Your task to perform on an android device: Open Chrome and go to settings Image 0: 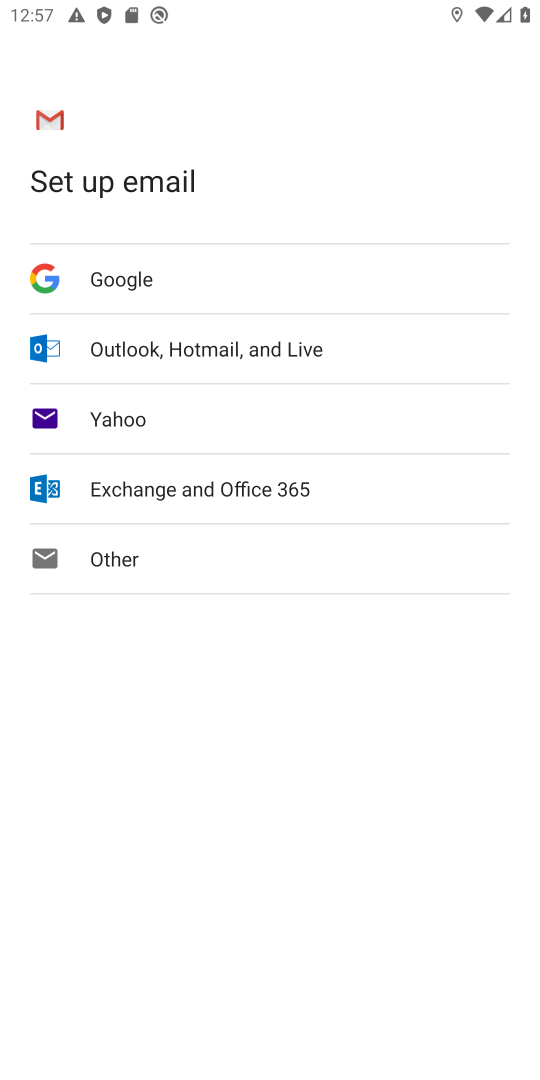
Step 0: press home button
Your task to perform on an android device: Open Chrome and go to settings Image 1: 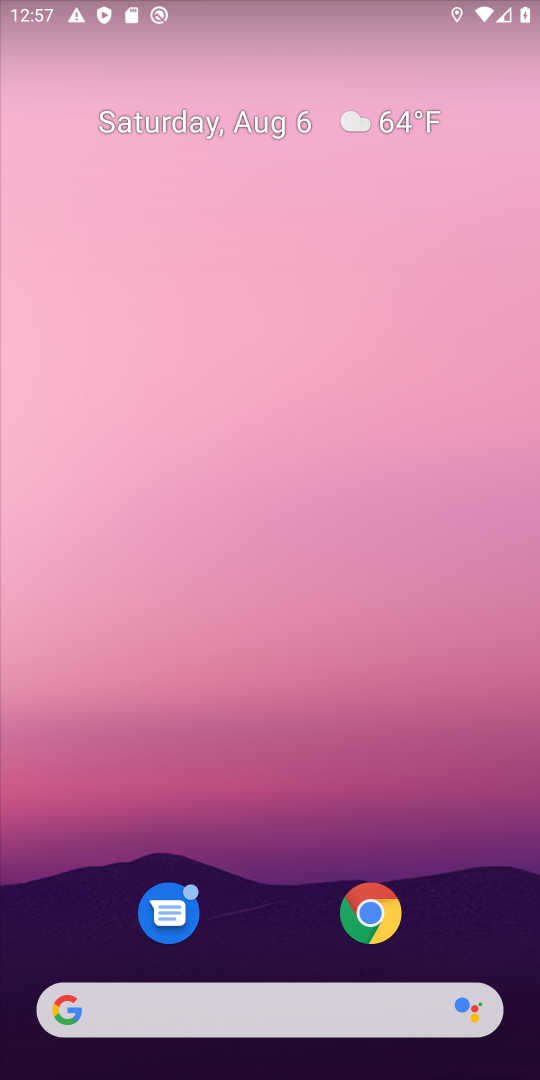
Step 1: drag from (279, 867) to (292, 396)
Your task to perform on an android device: Open Chrome and go to settings Image 2: 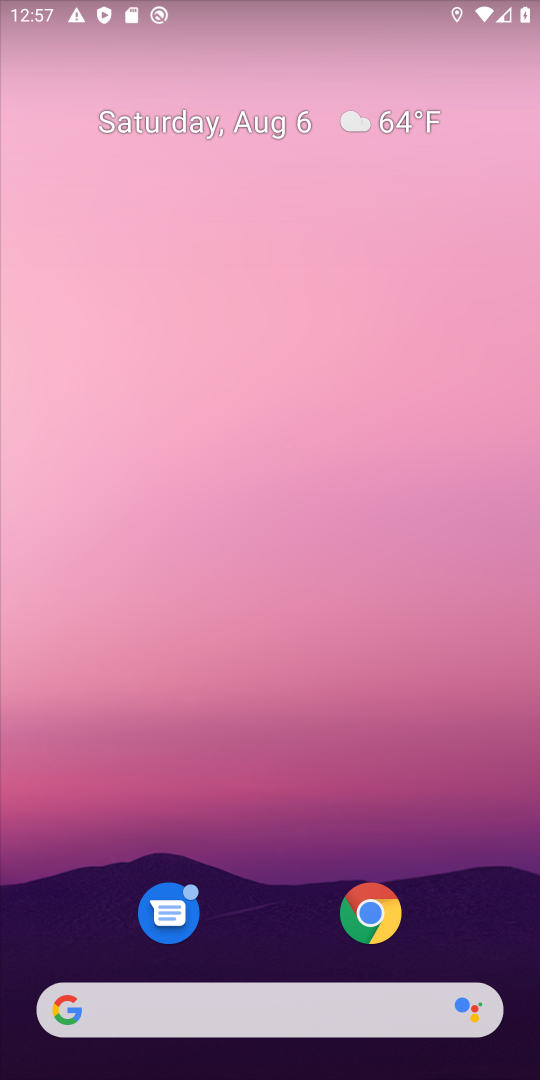
Step 2: drag from (446, 936) to (454, 332)
Your task to perform on an android device: Open Chrome and go to settings Image 3: 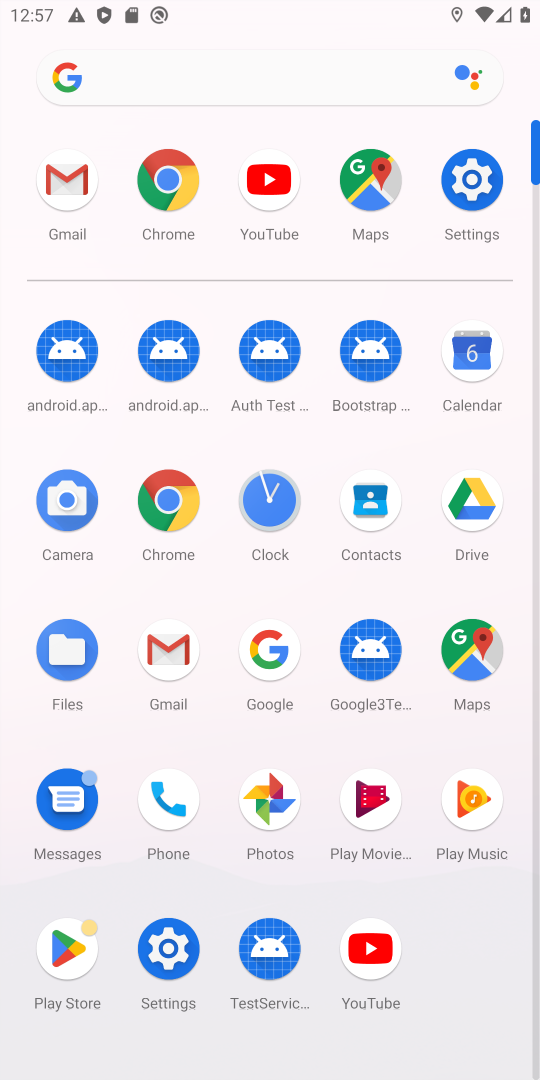
Step 3: click (171, 500)
Your task to perform on an android device: Open Chrome and go to settings Image 4: 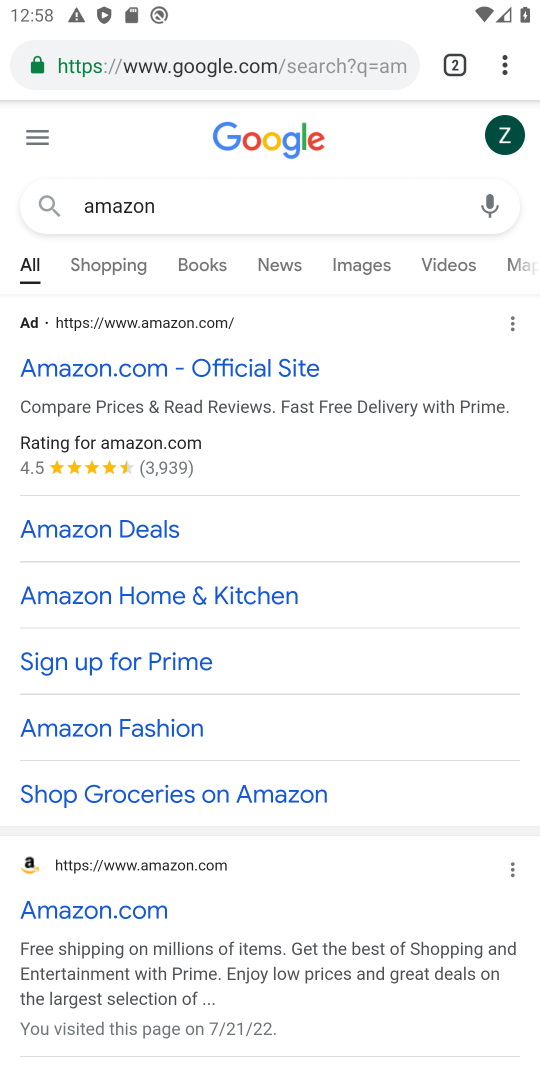
Step 4: click (500, 69)
Your task to perform on an android device: Open Chrome and go to settings Image 5: 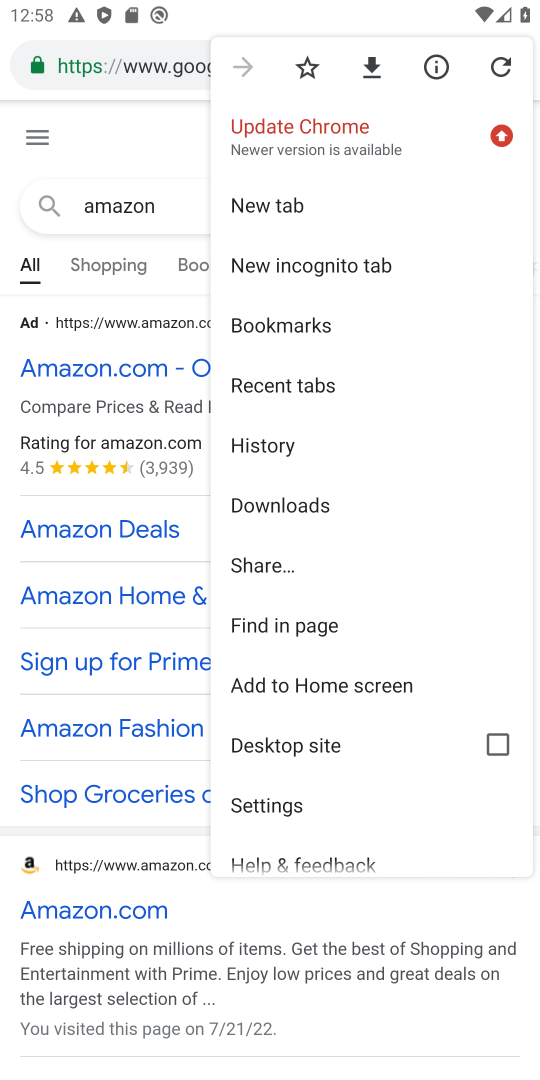
Step 5: click (271, 822)
Your task to perform on an android device: Open Chrome and go to settings Image 6: 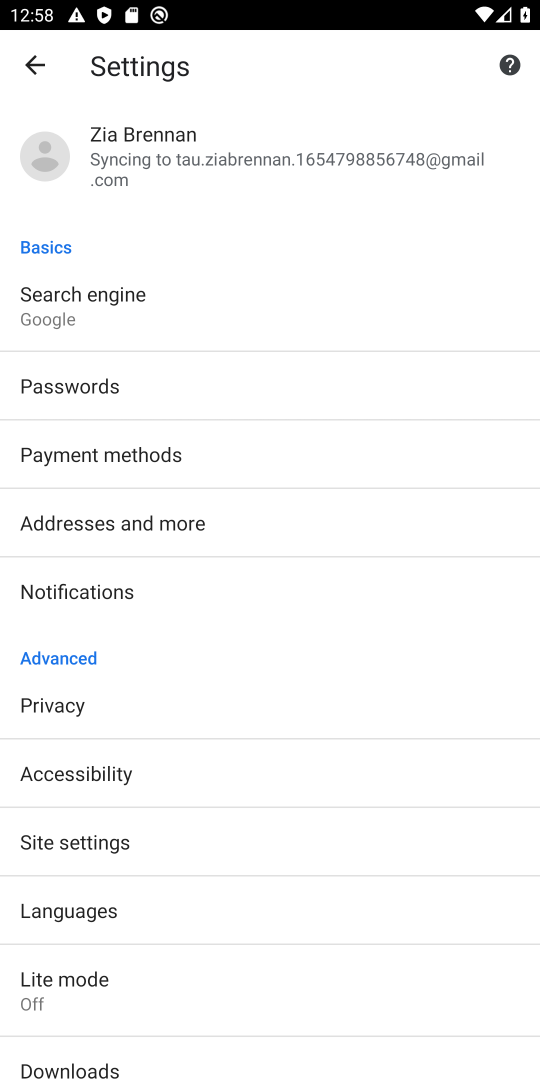
Step 6: task complete